Your task to perform on an android device: Search for hotels in Seattle Image 0: 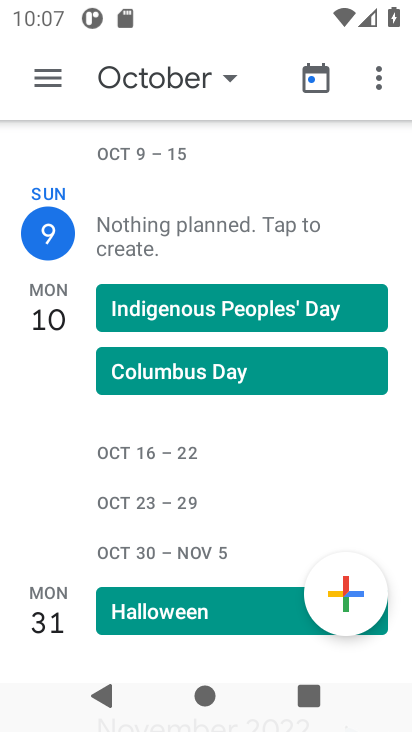
Step 0: drag from (160, 524) to (172, 324)
Your task to perform on an android device: Search for hotels in Seattle Image 1: 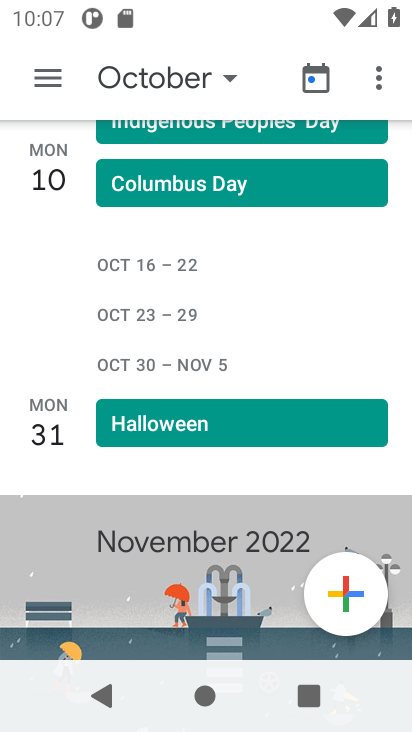
Step 1: drag from (190, 209) to (239, 481)
Your task to perform on an android device: Search for hotels in Seattle Image 2: 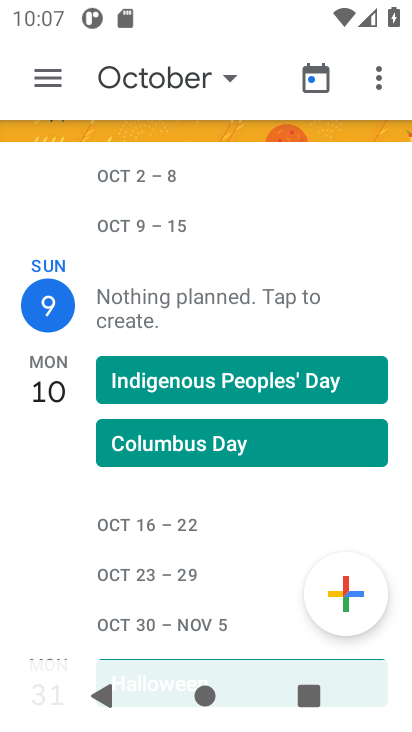
Step 2: press home button
Your task to perform on an android device: Search for hotels in Seattle Image 3: 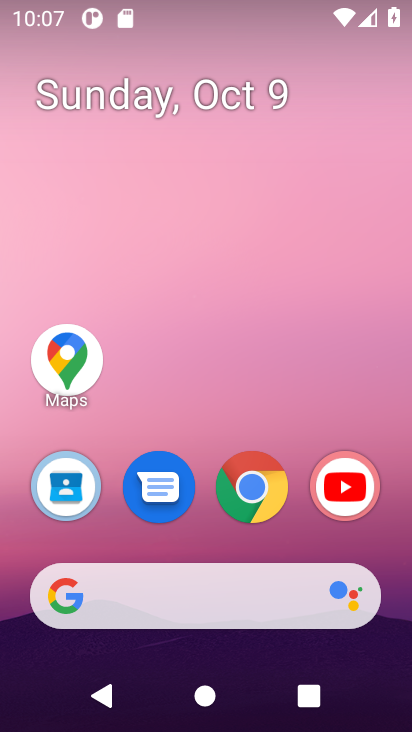
Step 3: click (257, 508)
Your task to perform on an android device: Search for hotels in Seattle Image 4: 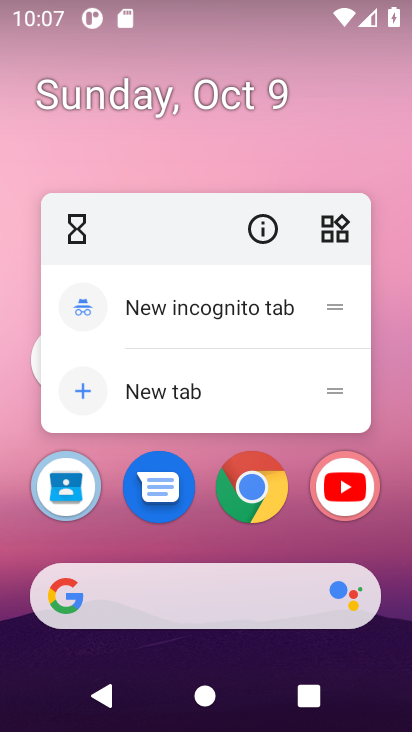
Step 4: click (240, 486)
Your task to perform on an android device: Search for hotels in Seattle Image 5: 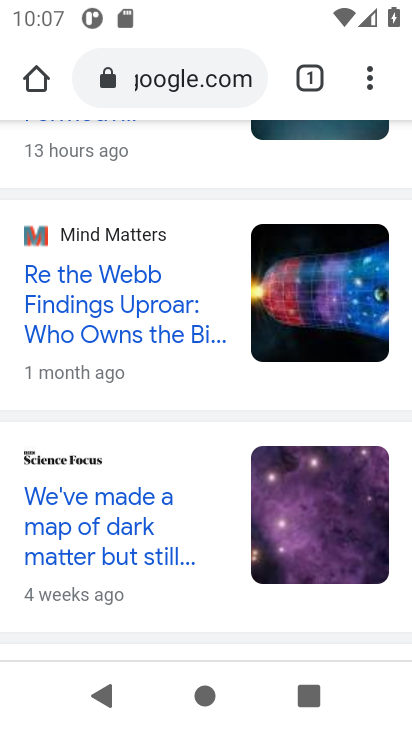
Step 5: click (163, 82)
Your task to perform on an android device: Search for hotels in Seattle Image 6: 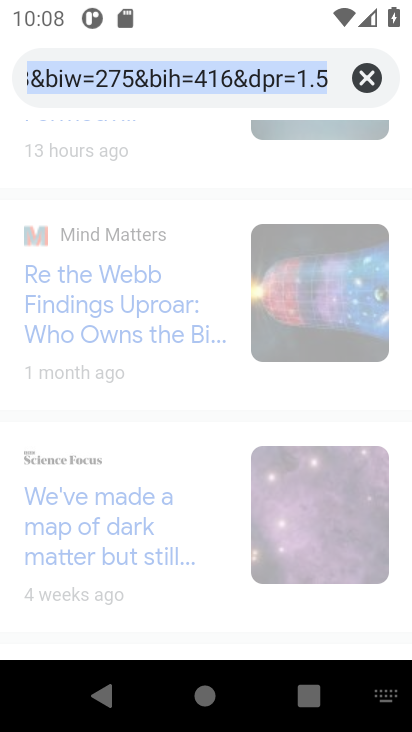
Step 6: type "hotels in seattle"
Your task to perform on an android device: Search for hotels in Seattle Image 7: 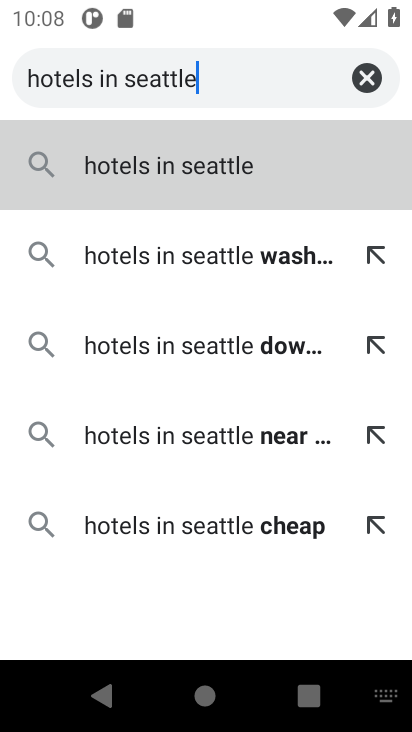
Step 7: type ""
Your task to perform on an android device: Search for hotels in Seattle Image 8: 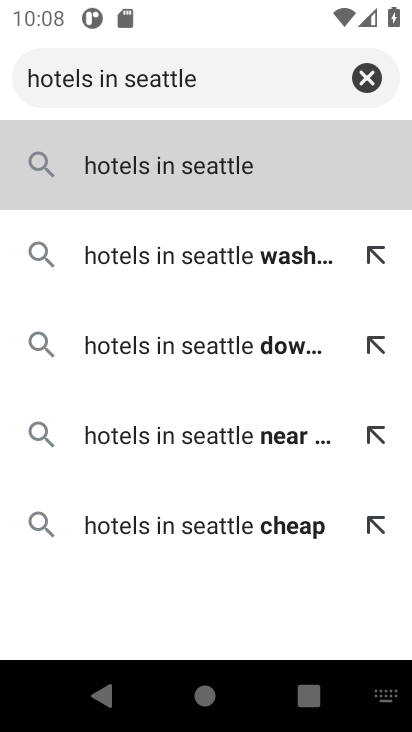
Step 8: press enter
Your task to perform on an android device: Search for hotels in Seattle Image 9: 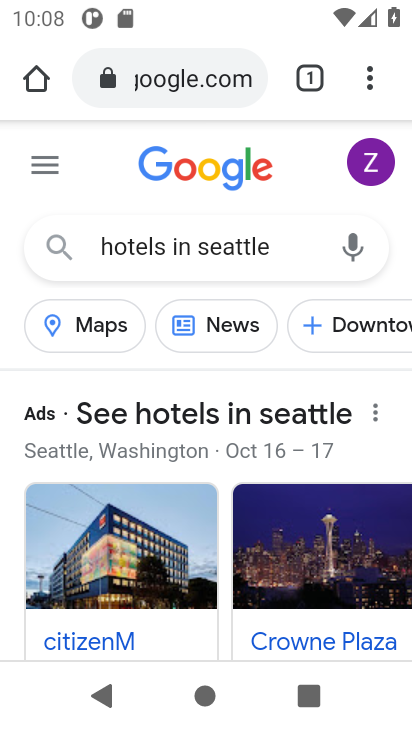
Step 9: drag from (195, 577) to (219, 229)
Your task to perform on an android device: Search for hotels in Seattle Image 10: 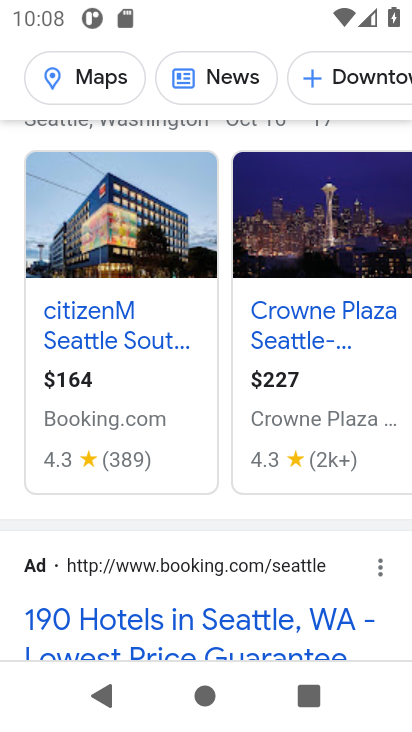
Step 10: drag from (237, 593) to (219, 293)
Your task to perform on an android device: Search for hotels in Seattle Image 11: 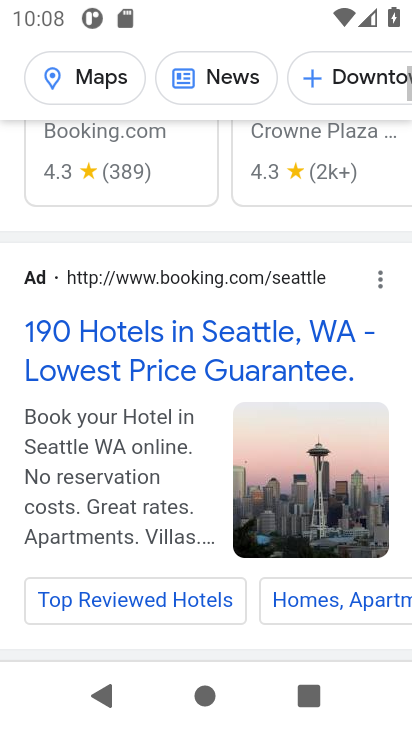
Step 11: drag from (217, 470) to (208, 293)
Your task to perform on an android device: Search for hotels in Seattle Image 12: 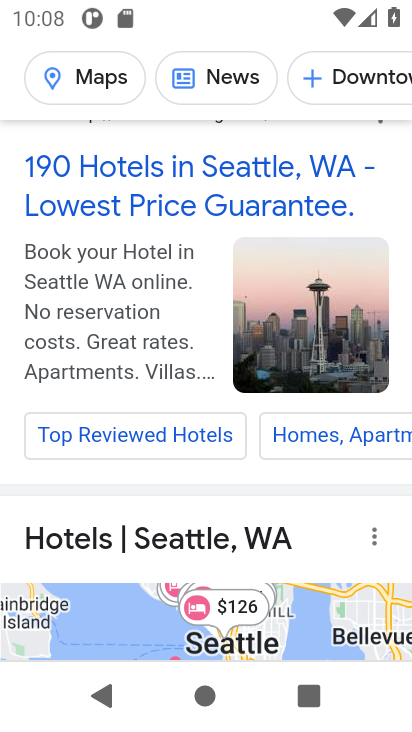
Step 12: drag from (173, 519) to (175, 278)
Your task to perform on an android device: Search for hotels in Seattle Image 13: 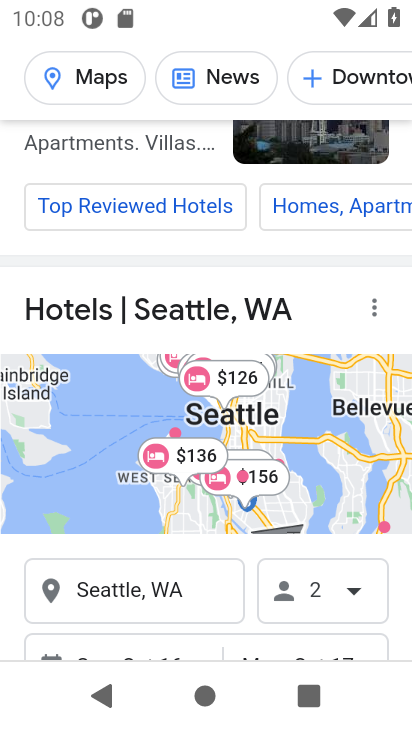
Step 13: drag from (284, 464) to (260, 198)
Your task to perform on an android device: Search for hotels in Seattle Image 14: 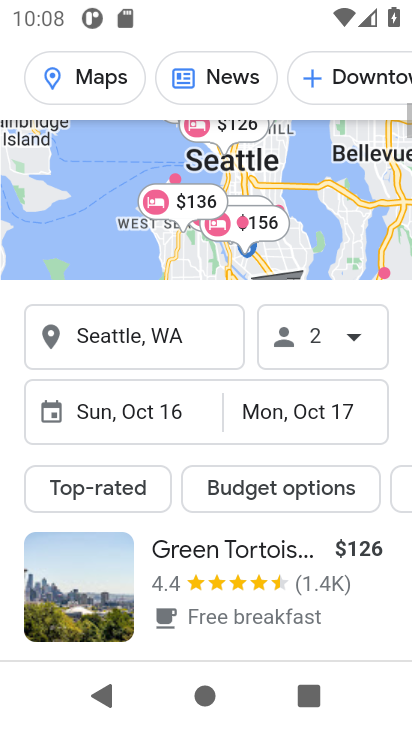
Step 14: drag from (265, 510) to (265, 287)
Your task to perform on an android device: Search for hotels in Seattle Image 15: 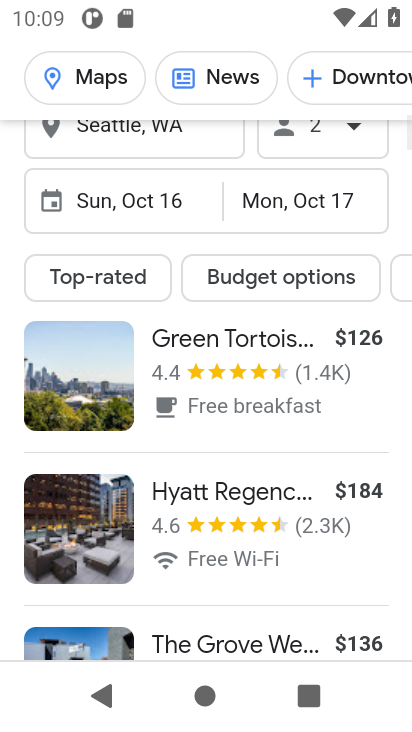
Step 15: drag from (269, 570) to (267, 301)
Your task to perform on an android device: Search for hotels in Seattle Image 16: 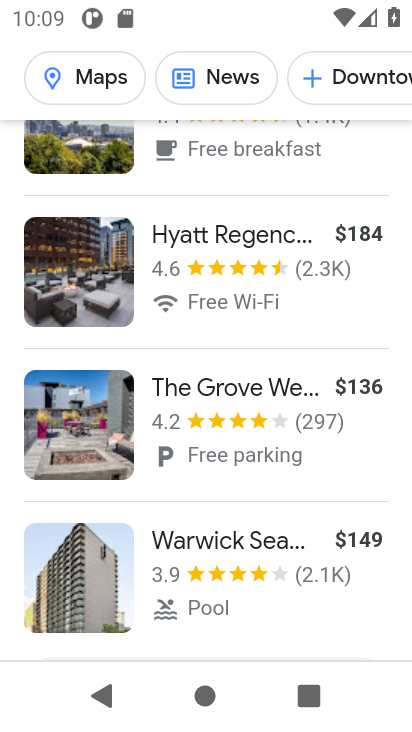
Step 16: drag from (245, 537) to (244, 364)
Your task to perform on an android device: Search for hotels in Seattle Image 17: 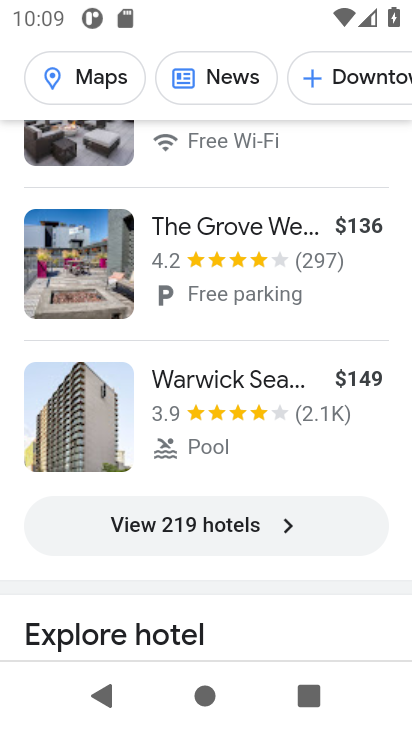
Step 17: drag from (239, 407) to (238, 247)
Your task to perform on an android device: Search for hotels in Seattle Image 18: 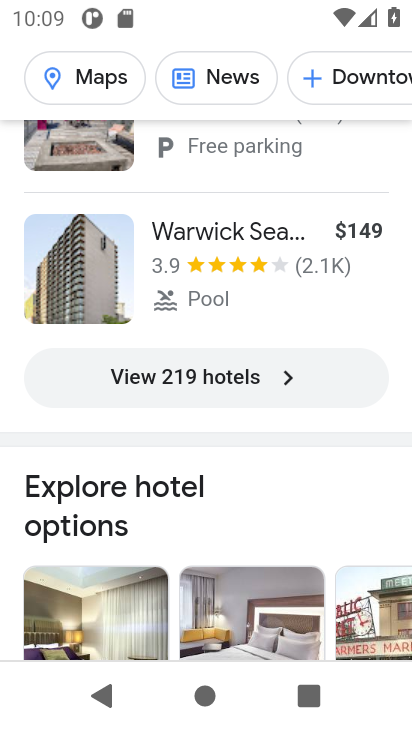
Step 18: drag from (210, 484) to (209, 239)
Your task to perform on an android device: Search for hotels in Seattle Image 19: 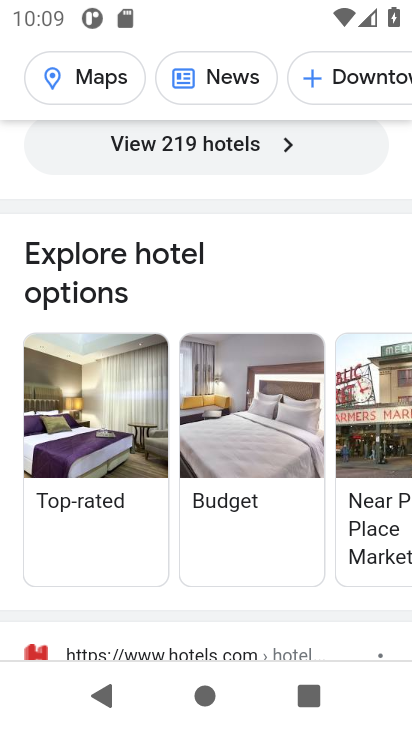
Step 19: drag from (223, 531) to (230, 241)
Your task to perform on an android device: Search for hotels in Seattle Image 20: 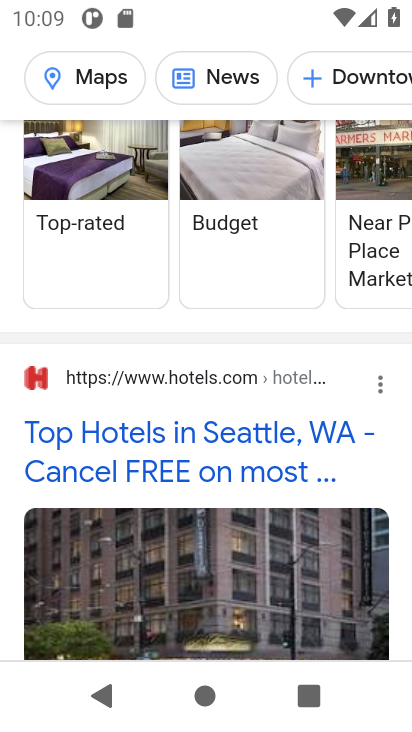
Step 20: click (197, 462)
Your task to perform on an android device: Search for hotels in Seattle Image 21: 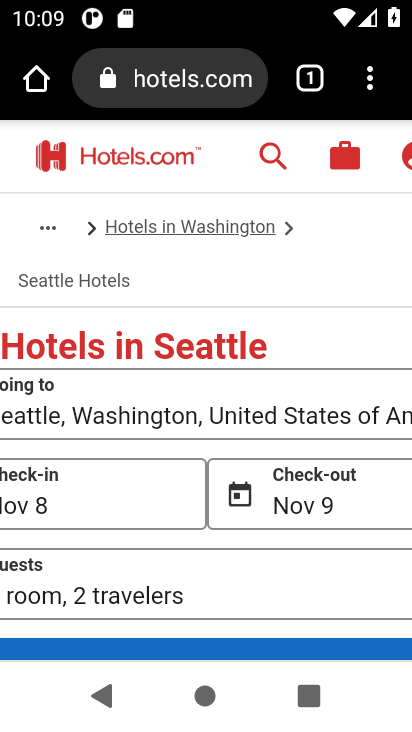
Step 21: drag from (200, 609) to (211, 330)
Your task to perform on an android device: Search for hotels in Seattle Image 22: 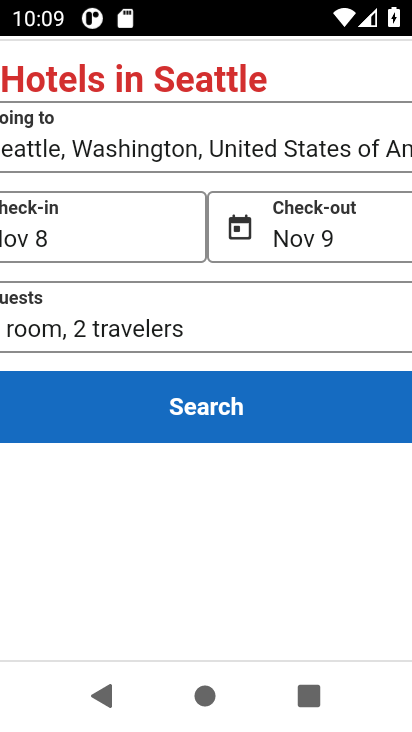
Step 22: click (223, 403)
Your task to perform on an android device: Search for hotels in Seattle Image 23: 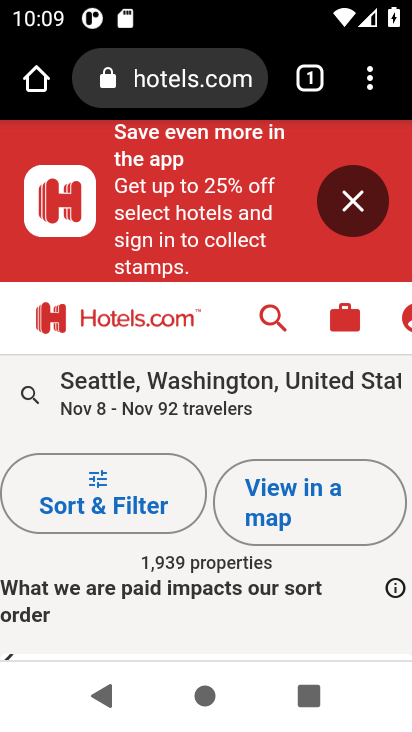
Step 23: task complete